Your task to perform on an android device: Go to battery settings Image 0: 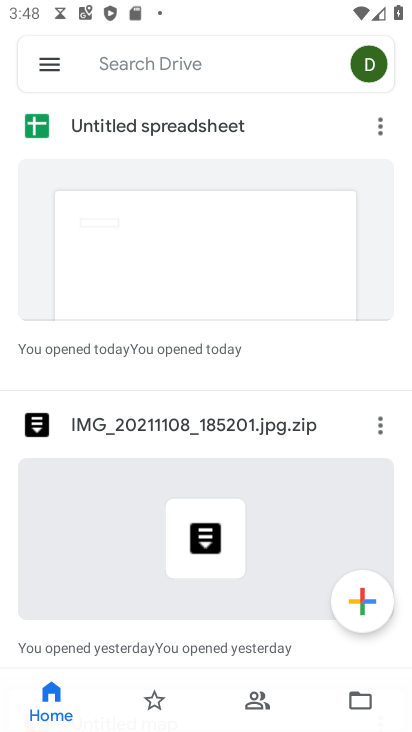
Step 0: press home button
Your task to perform on an android device: Go to battery settings Image 1: 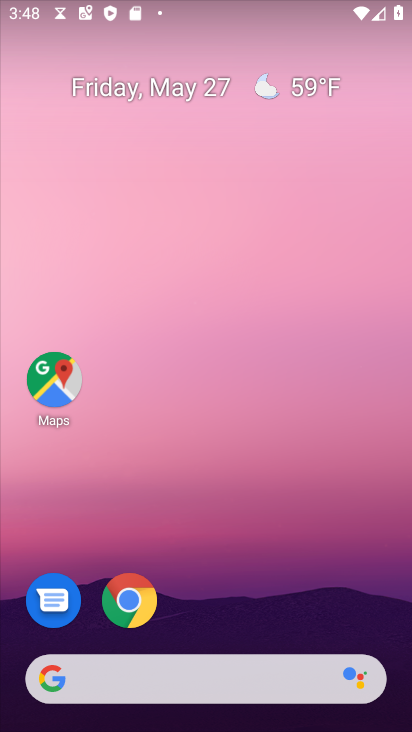
Step 1: drag from (266, 609) to (209, 135)
Your task to perform on an android device: Go to battery settings Image 2: 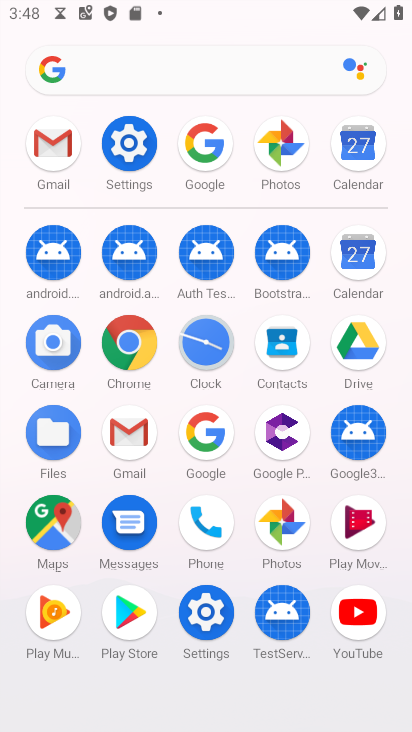
Step 2: click (129, 143)
Your task to perform on an android device: Go to battery settings Image 3: 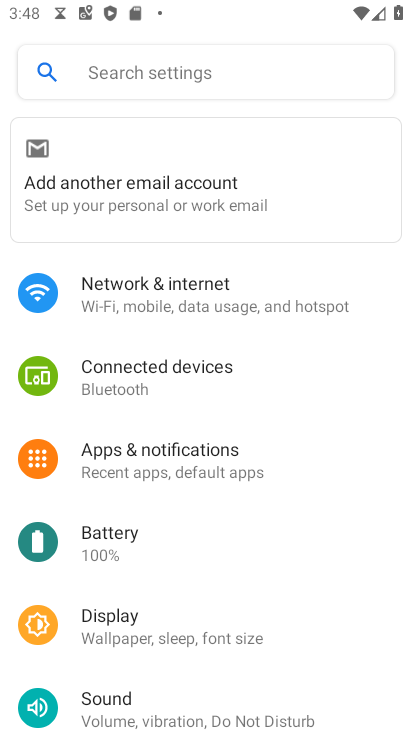
Step 3: click (102, 538)
Your task to perform on an android device: Go to battery settings Image 4: 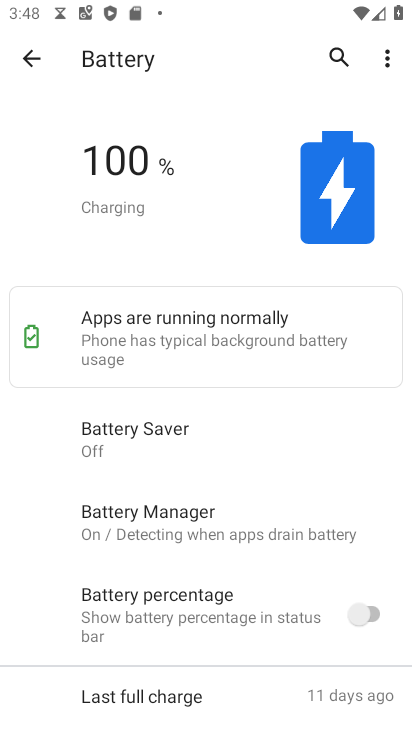
Step 4: task complete